Your task to perform on an android device: allow cookies in the chrome app Image 0: 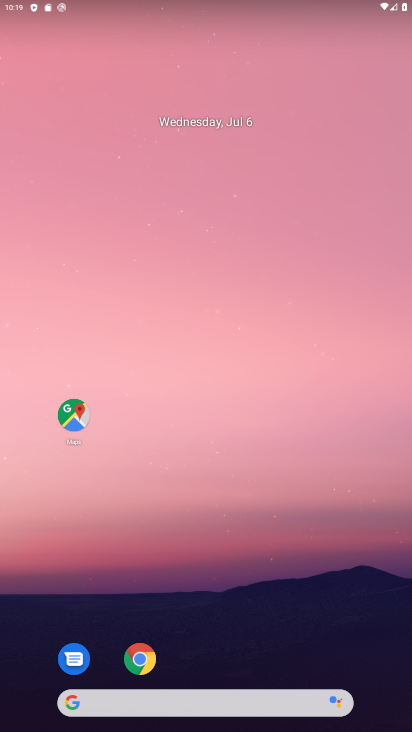
Step 0: click (143, 656)
Your task to perform on an android device: allow cookies in the chrome app Image 1: 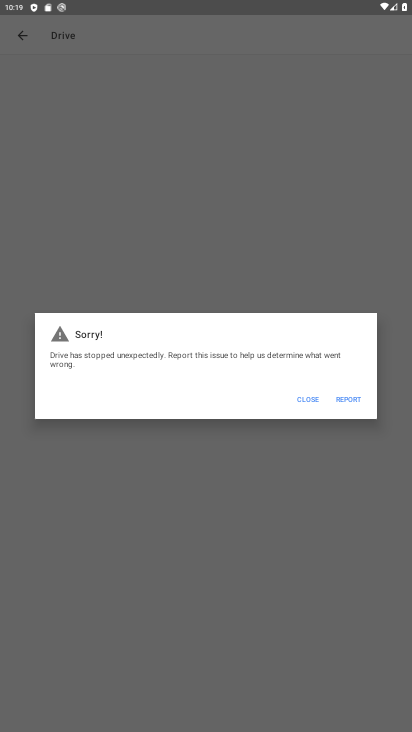
Step 1: press home button
Your task to perform on an android device: allow cookies in the chrome app Image 2: 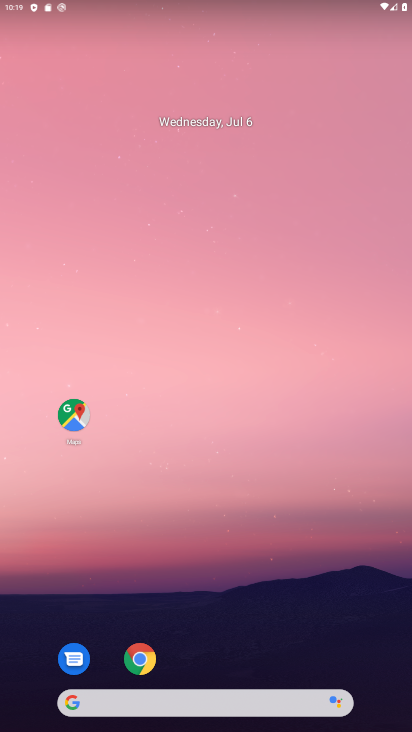
Step 2: click (143, 656)
Your task to perform on an android device: allow cookies in the chrome app Image 3: 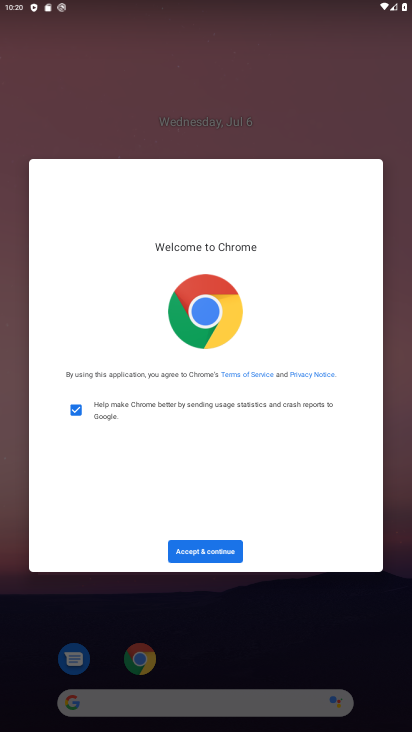
Step 3: click (191, 542)
Your task to perform on an android device: allow cookies in the chrome app Image 4: 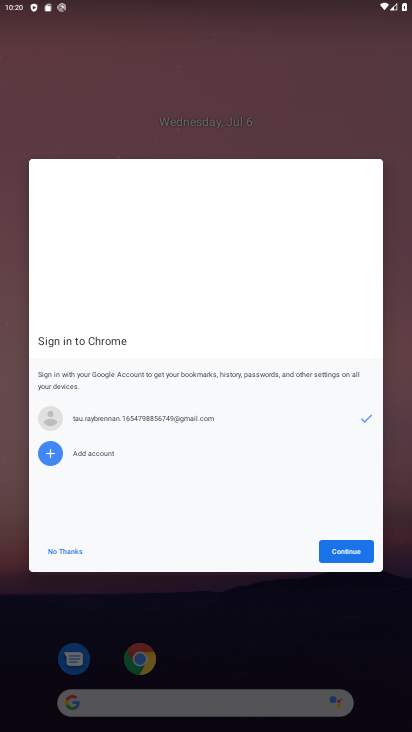
Step 4: click (332, 551)
Your task to perform on an android device: allow cookies in the chrome app Image 5: 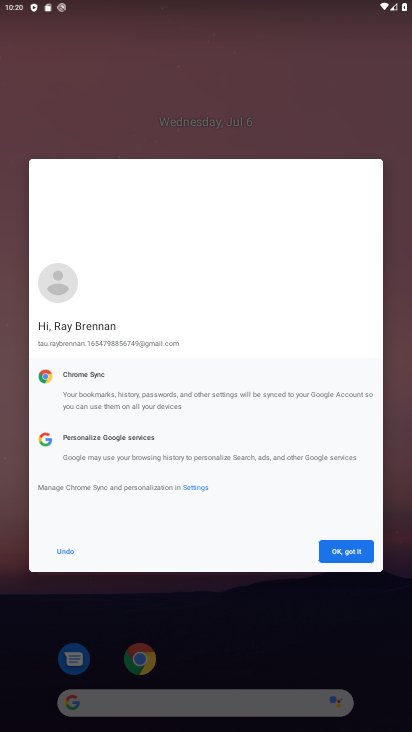
Step 5: click (348, 552)
Your task to perform on an android device: allow cookies in the chrome app Image 6: 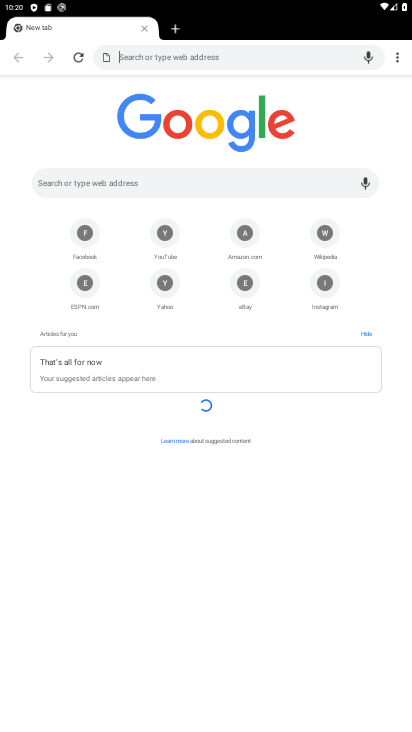
Step 6: click (393, 50)
Your task to perform on an android device: allow cookies in the chrome app Image 7: 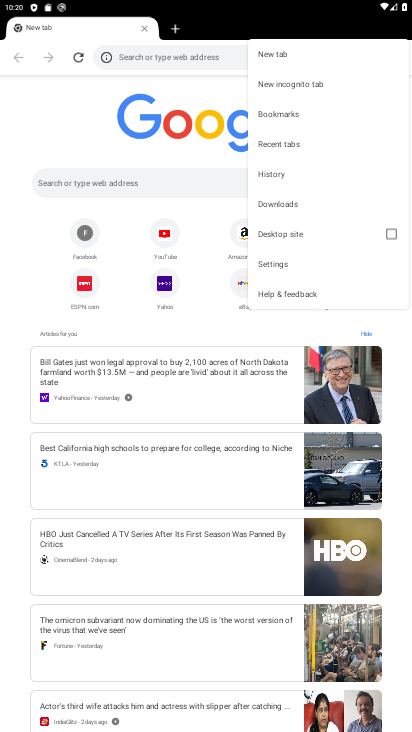
Step 7: click (290, 267)
Your task to perform on an android device: allow cookies in the chrome app Image 8: 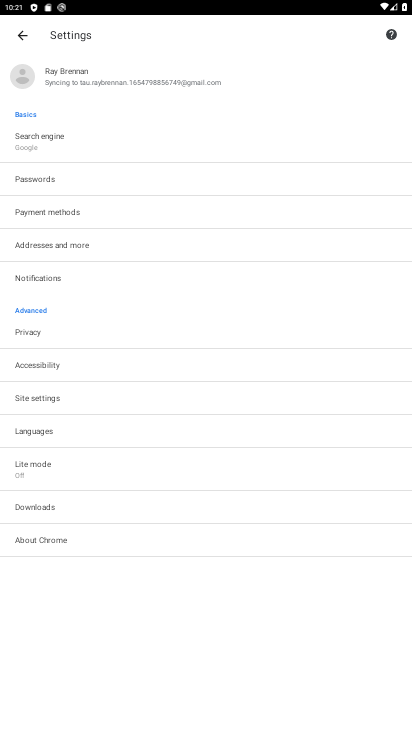
Step 8: click (58, 399)
Your task to perform on an android device: allow cookies in the chrome app Image 9: 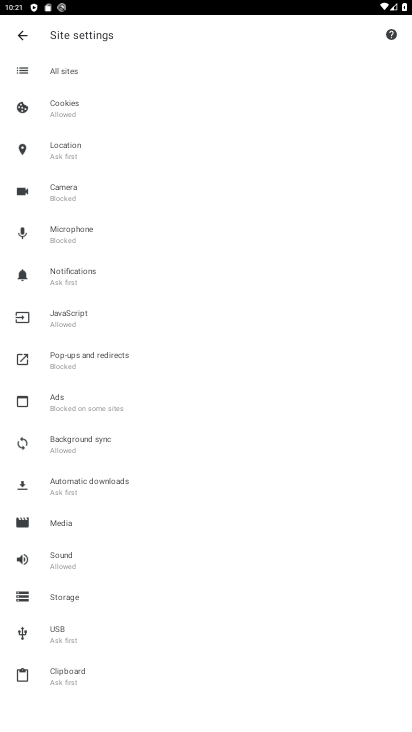
Step 9: click (80, 107)
Your task to perform on an android device: allow cookies in the chrome app Image 10: 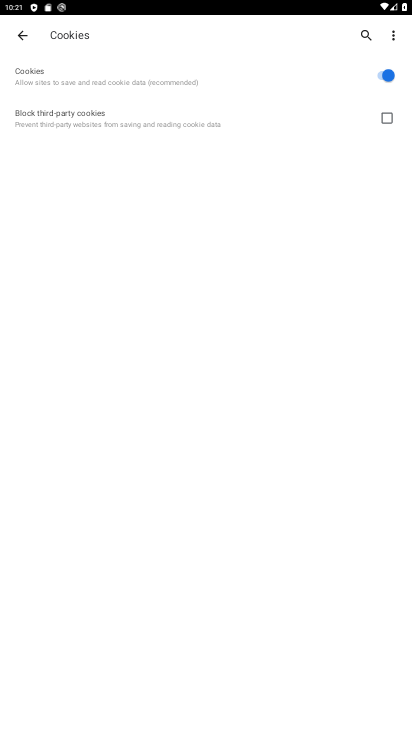
Step 10: task complete